Your task to perform on an android device: Open Chrome and go to settings Image 0: 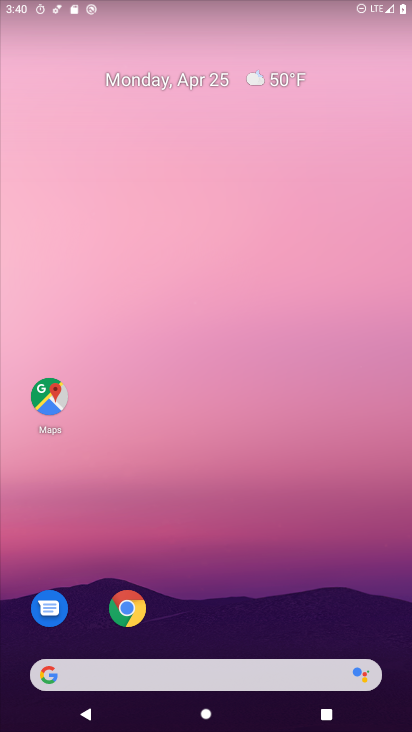
Step 0: click (142, 614)
Your task to perform on an android device: Open Chrome and go to settings Image 1: 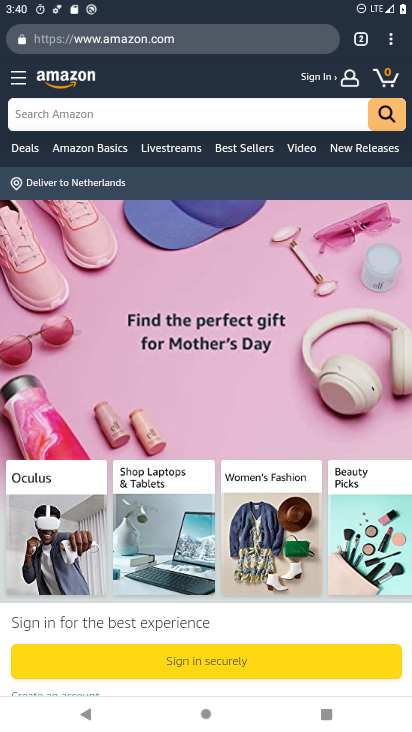
Step 1: click (395, 42)
Your task to perform on an android device: Open Chrome and go to settings Image 2: 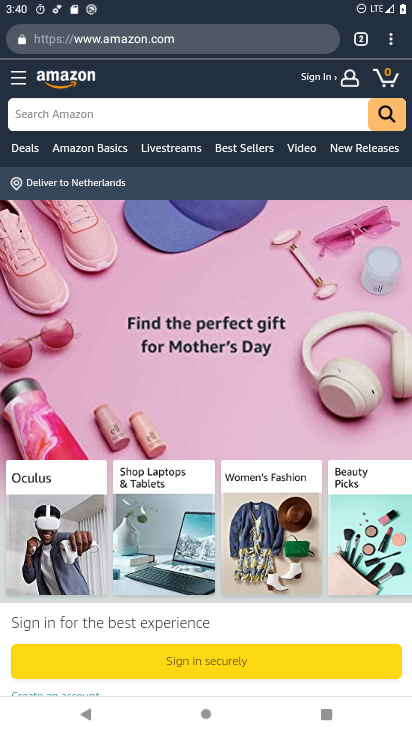
Step 2: task complete